Your task to perform on an android device: turn on data saver in the chrome app Image 0: 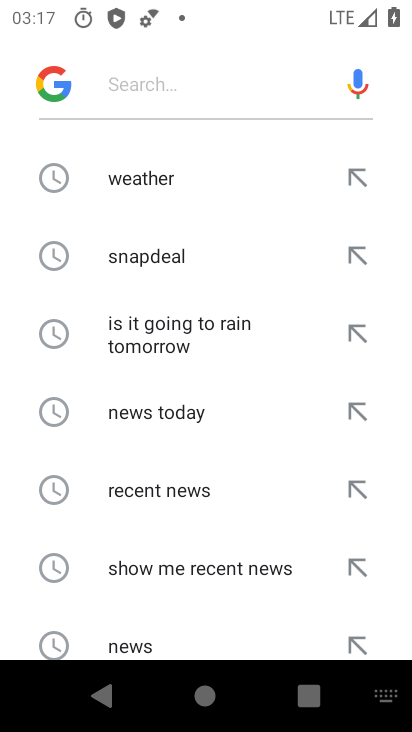
Step 0: press home button
Your task to perform on an android device: turn on data saver in the chrome app Image 1: 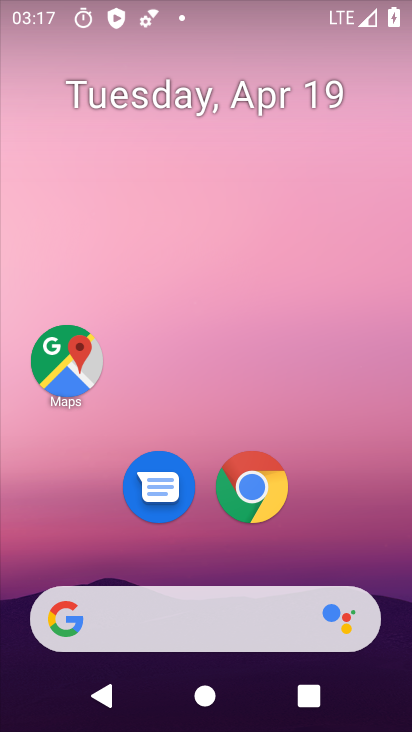
Step 1: click (259, 464)
Your task to perform on an android device: turn on data saver in the chrome app Image 2: 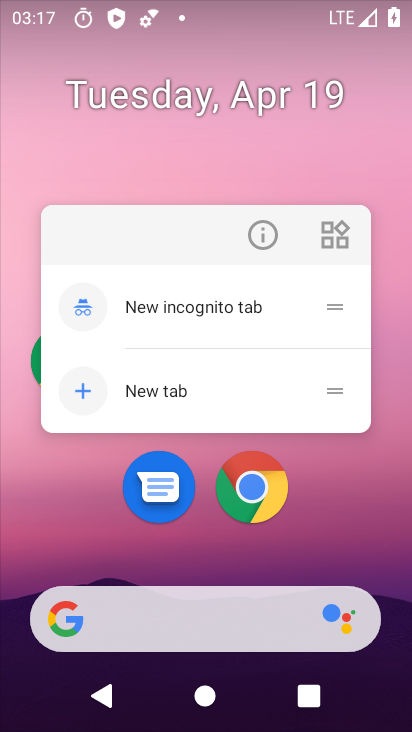
Step 2: click (262, 492)
Your task to perform on an android device: turn on data saver in the chrome app Image 3: 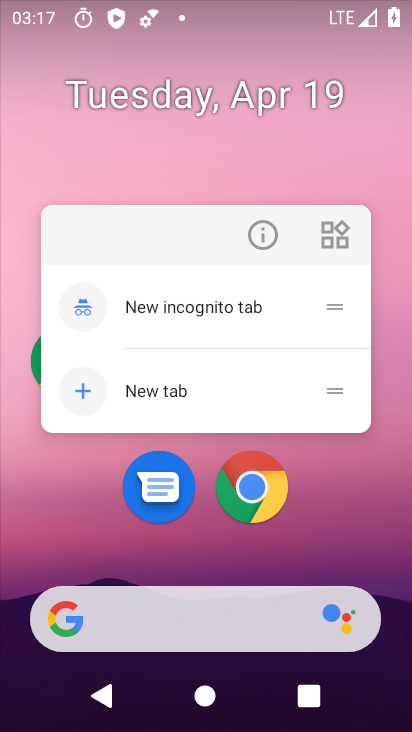
Step 3: click (246, 471)
Your task to perform on an android device: turn on data saver in the chrome app Image 4: 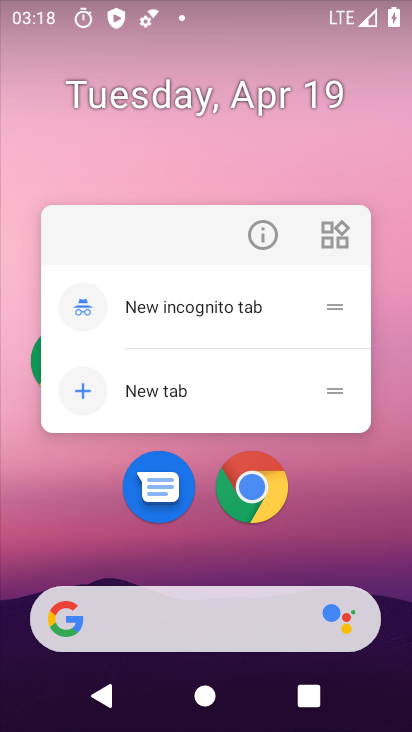
Step 4: click (253, 476)
Your task to perform on an android device: turn on data saver in the chrome app Image 5: 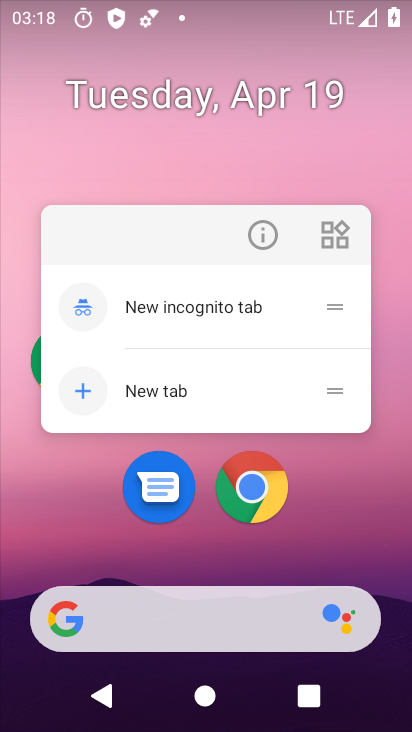
Step 5: click (253, 489)
Your task to perform on an android device: turn on data saver in the chrome app Image 6: 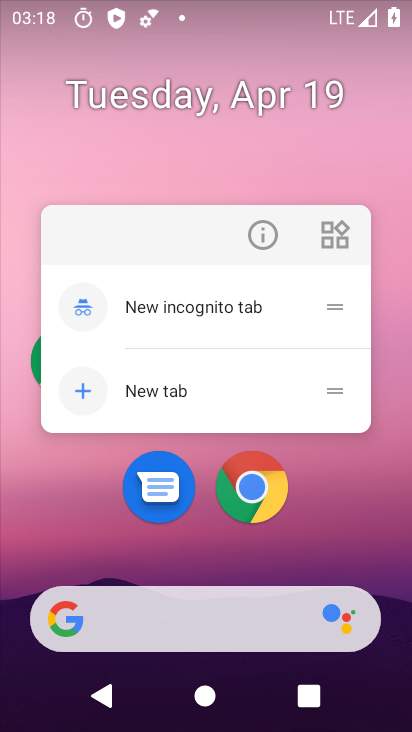
Step 6: click (241, 493)
Your task to perform on an android device: turn on data saver in the chrome app Image 7: 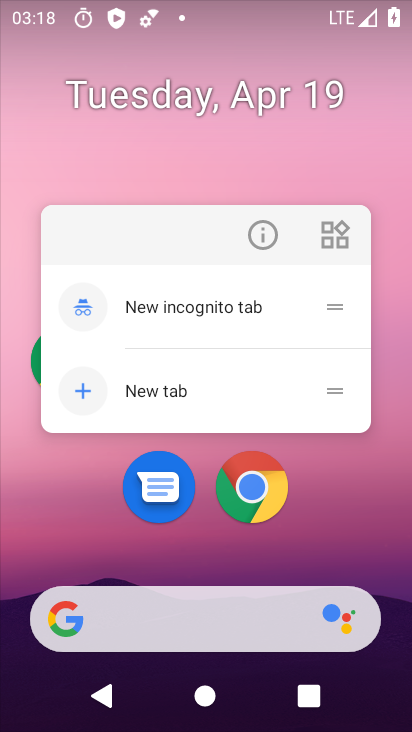
Step 7: click (255, 507)
Your task to perform on an android device: turn on data saver in the chrome app Image 8: 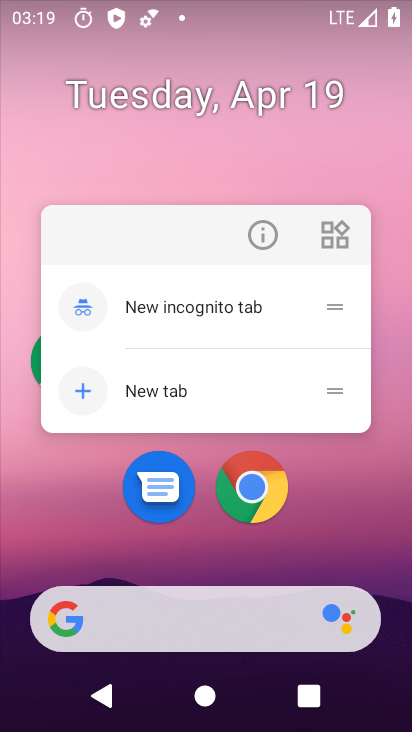
Step 8: click (254, 494)
Your task to perform on an android device: turn on data saver in the chrome app Image 9: 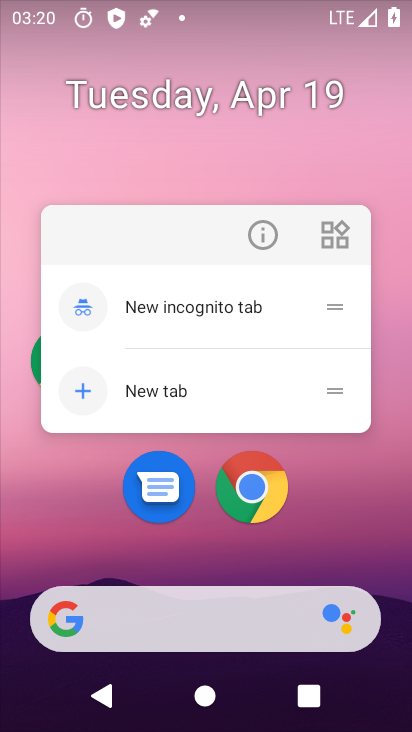
Step 9: click (257, 474)
Your task to perform on an android device: turn on data saver in the chrome app Image 10: 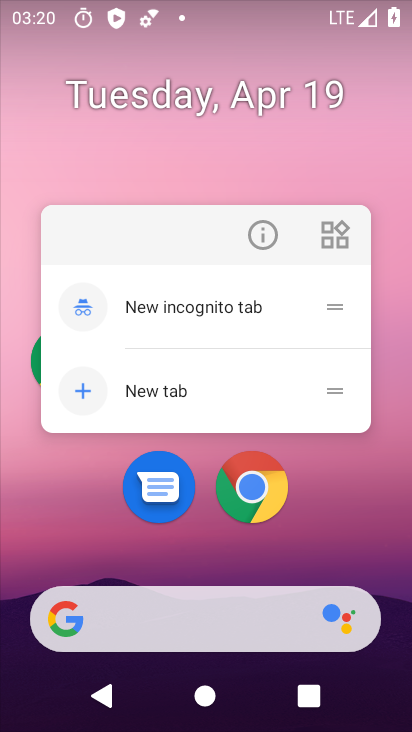
Step 10: click (256, 488)
Your task to perform on an android device: turn on data saver in the chrome app Image 11: 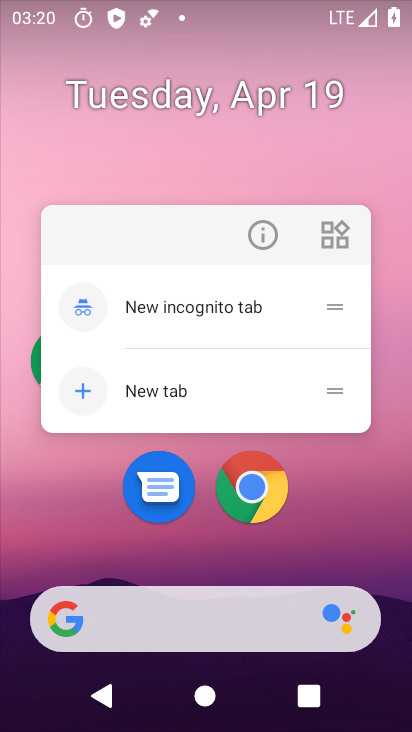
Step 11: click (261, 494)
Your task to perform on an android device: turn on data saver in the chrome app Image 12: 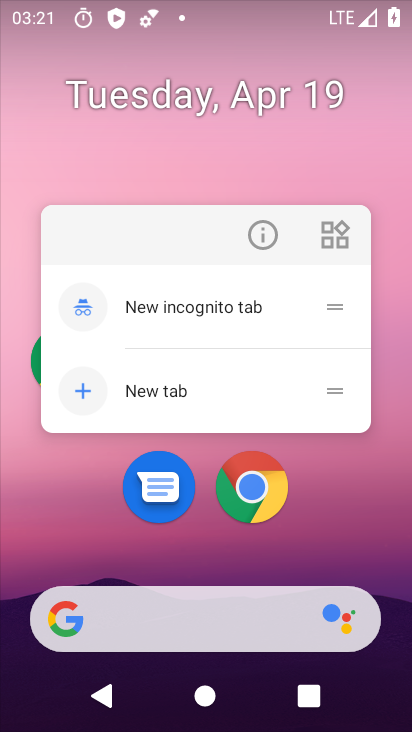
Step 12: click (262, 466)
Your task to perform on an android device: turn on data saver in the chrome app Image 13: 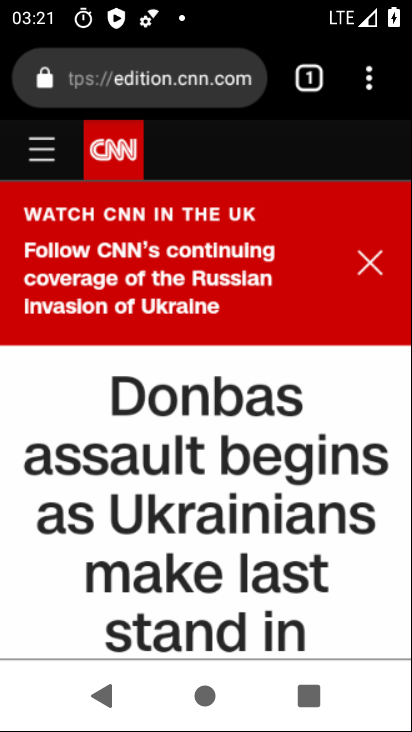
Step 13: drag from (373, 81) to (106, 545)
Your task to perform on an android device: turn on data saver in the chrome app Image 14: 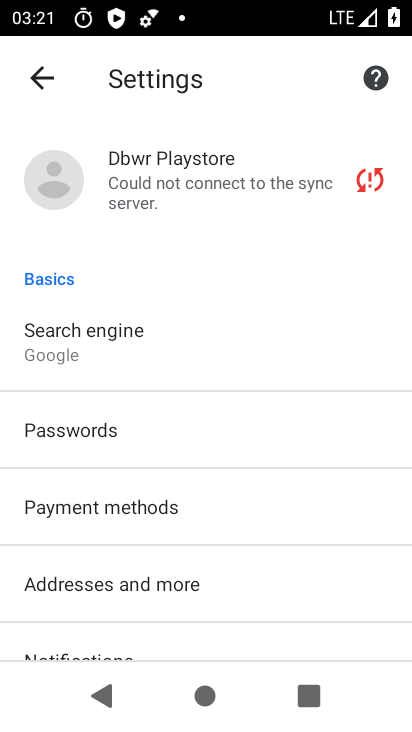
Step 14: drag from (125, 602) to (261, 85)
Your task to perform on an android device: turn on data saver in the chrome app Image 15: 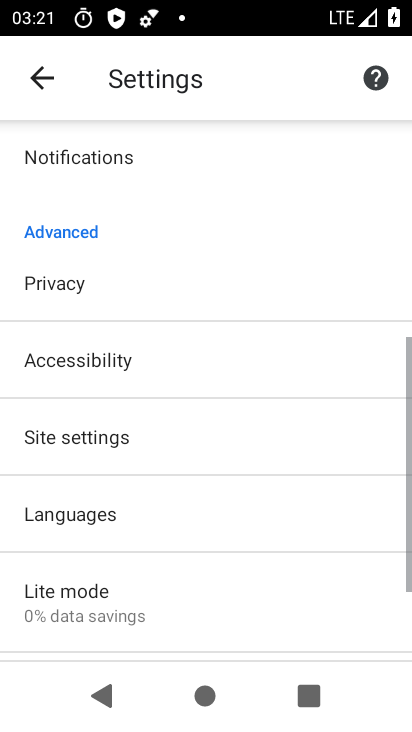
Step 15: click (93, 616)
Your task to perform on an android device: turn on data saver in the chrome app Image 16: 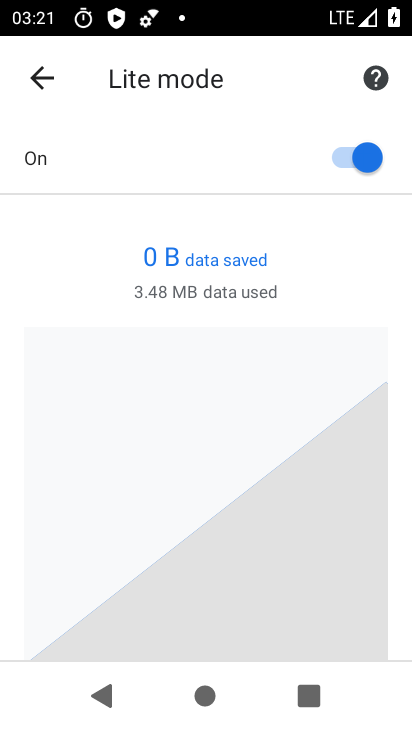
Step 16: task complete